Your task to perform on an android device: Turn on the flashlight Image 0: 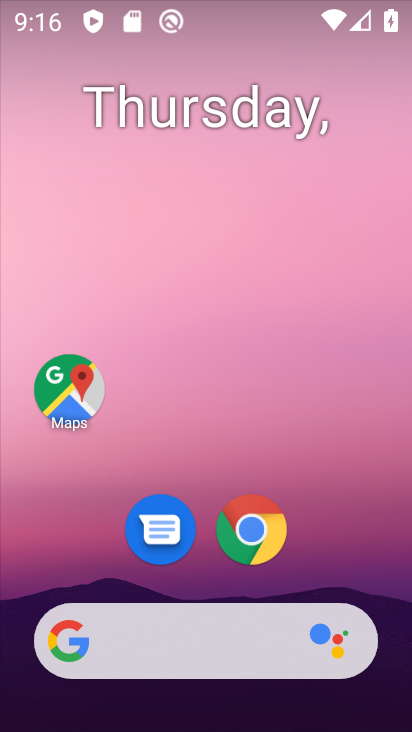
Step 0: drag from (346, 550) to (260, 161)
Your task to perform on an android device: Turn on the flashlight Image 1: 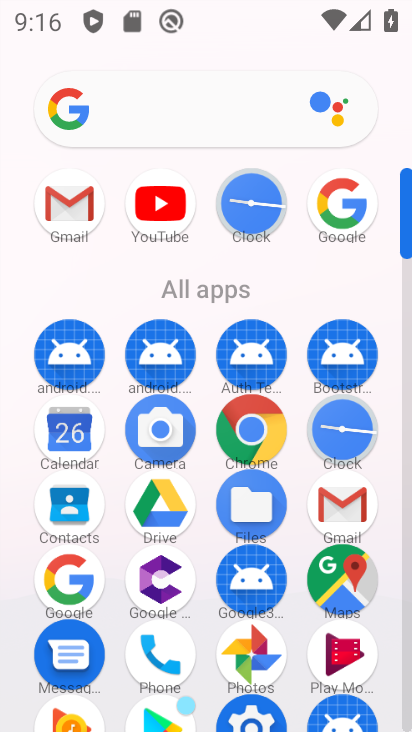
Step 1: drag from (195, 552) to (213, 348)
Your task to perform on an android device: Turn on the flashlight Image 2: 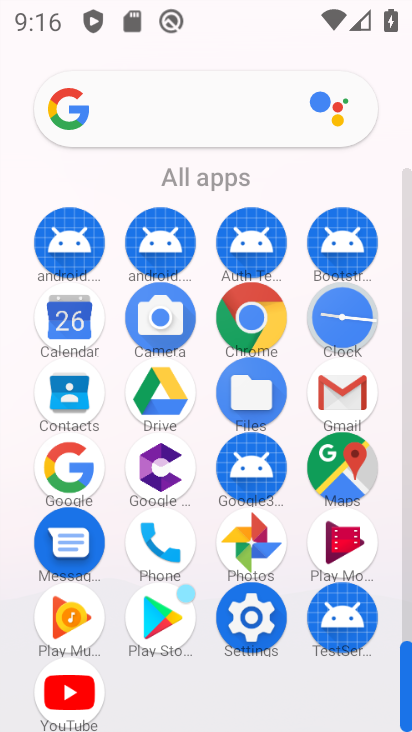
Step 2: click (252, 616)
Your task to perform on an android device: Turn on the flashlight Image 3: 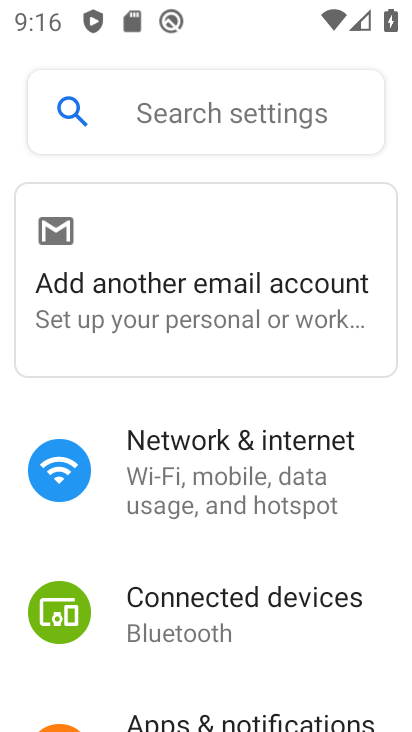
Step 3: drag from (259, 677) to (298, 537)
Your task to perform on an android device: Turn on the flashlight Image 4: 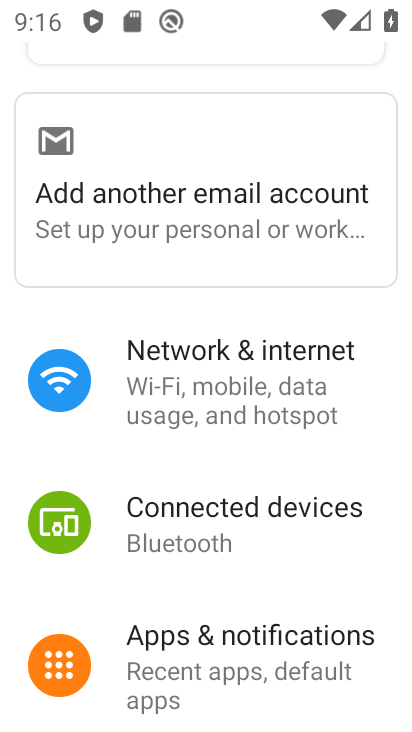
Step 4: drag from (197, 593) to (256, 493)
Your task to perform on an android device: Turn on the flashlight Image 5: 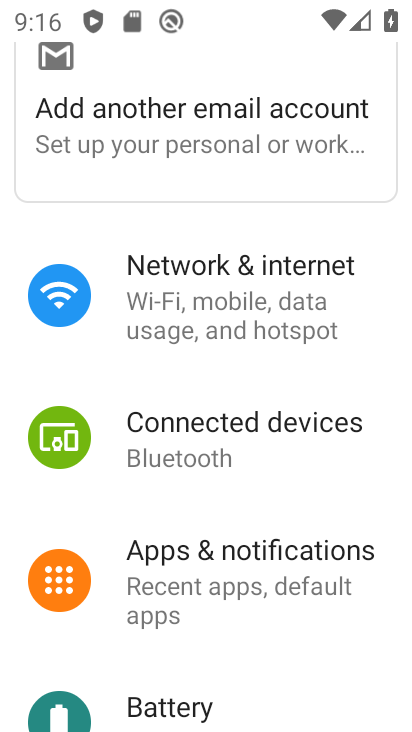
Step 5: drag from (211, 641) to (291, 516)
Your task to perform on an android device: Turn on the flashlight Image 6: 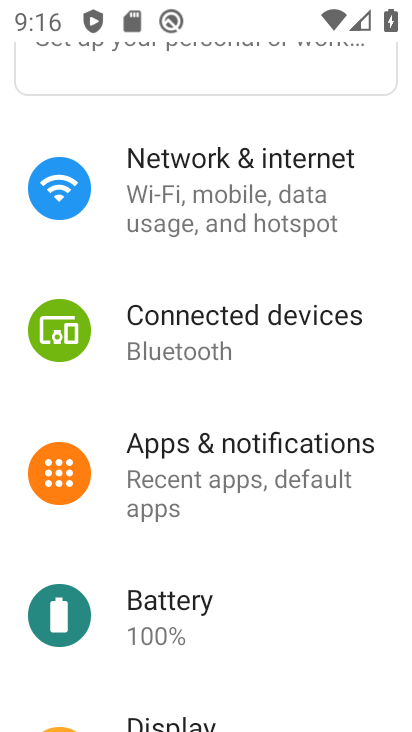
Step 6: drag from (202, 558) to (278, 418)
Your task to perform on an android device: Turn on the flashlight Image 7: 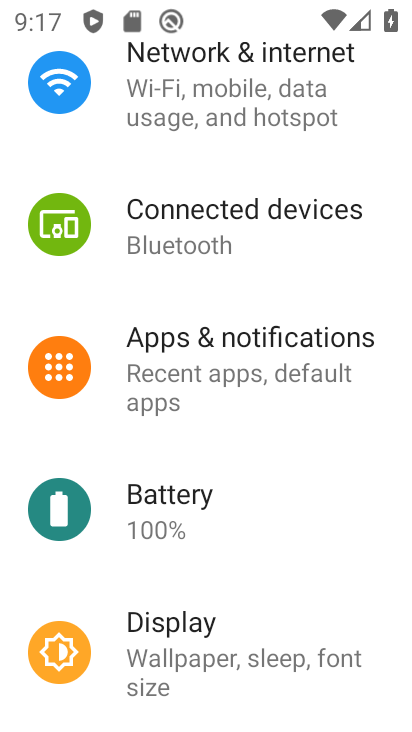
Step 7: drag from (234, 416) to (257, 346)
Your task to perform on an android device: Turn on the flashlight Image 8: 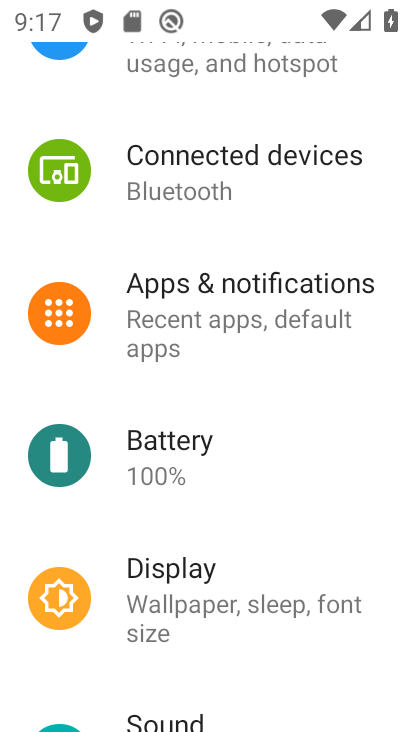
Step 8: drag from (247, 567) to (296, 495)
Your task to perform on an android device: Turn on the flashlight Image 9: 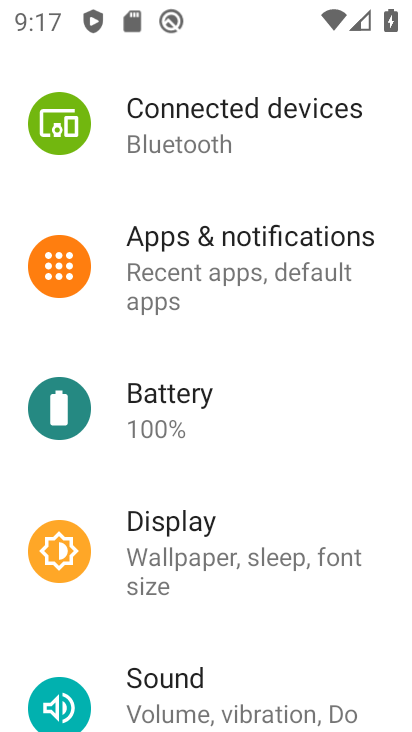
Step 9: drag from (287, 277) to (297, 386)
Your task to perform on an android device: Turn on the flashlight Image 10: 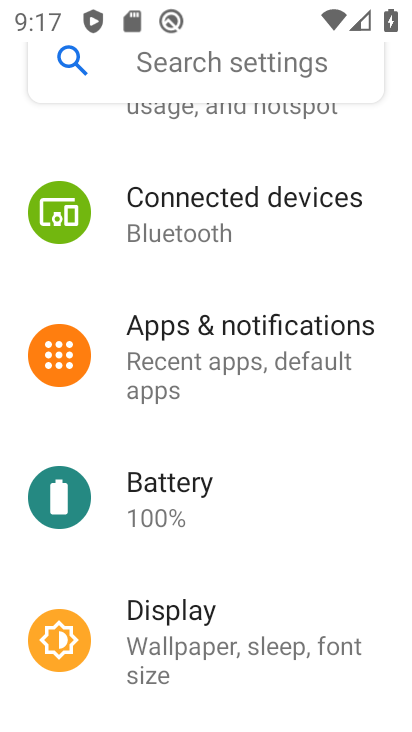
Step 10: drag from (271, 601) to (312, 390)
Your task to perform on an android device: Turn on the flashlight Image 11: 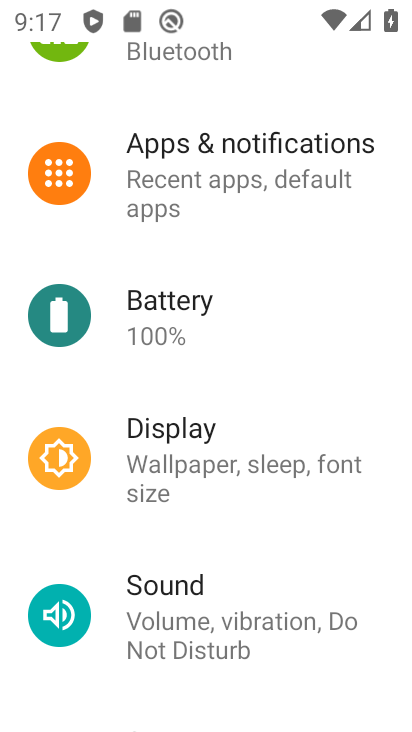
Step 11: click (283, 471)
Your task to perform on an android device: Turn on the flashlight Image 12: 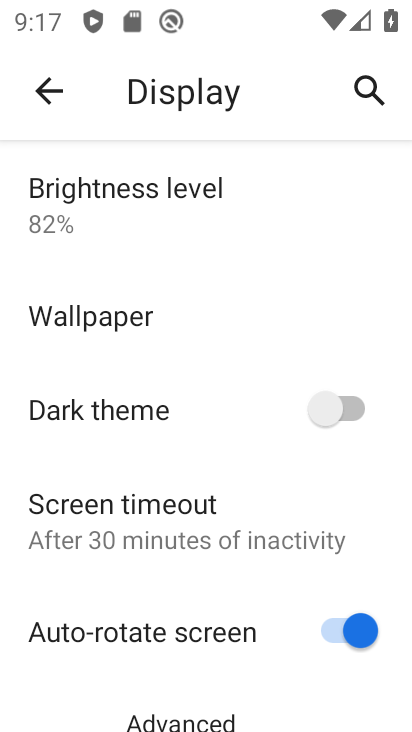
Step 12: drag from (175, 471) to (244, 316)
Your task to perform on an android device: Turn on the flashlight Image 13: 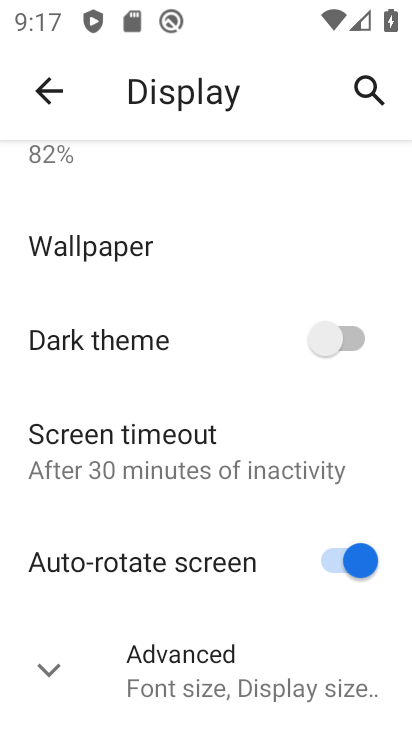
Step 13: click (260, 464)
Your task to perform on an android device: Turn on the flashlight Image 14: 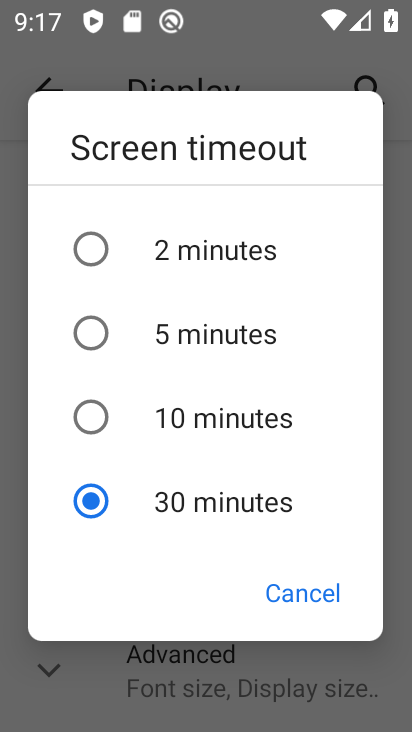
Step 14: click (307, 575)
Your task to perform on an android device: Turn on the flashlight Image 15: 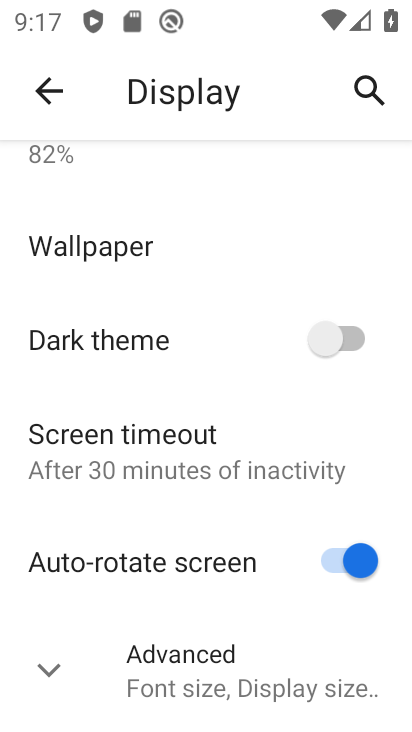
Step 15: drag from (236, 603) to (261, 455)
Your task to perform on an android device: Turn on the flashlight Image 16: 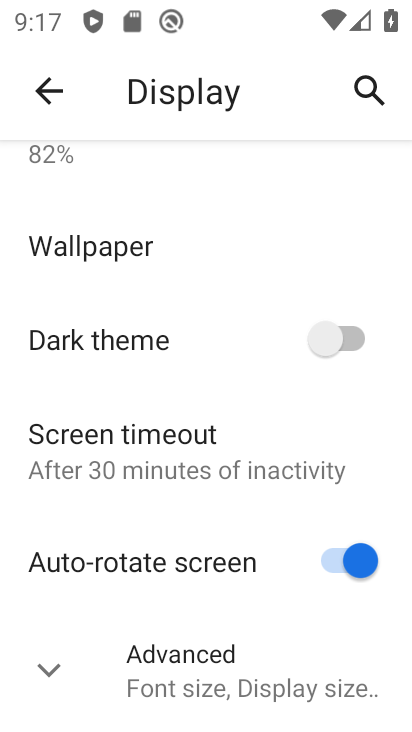
Step 16: click (252, 692)
Your task to perform on an android device: Turn on the flashlight Image 17: 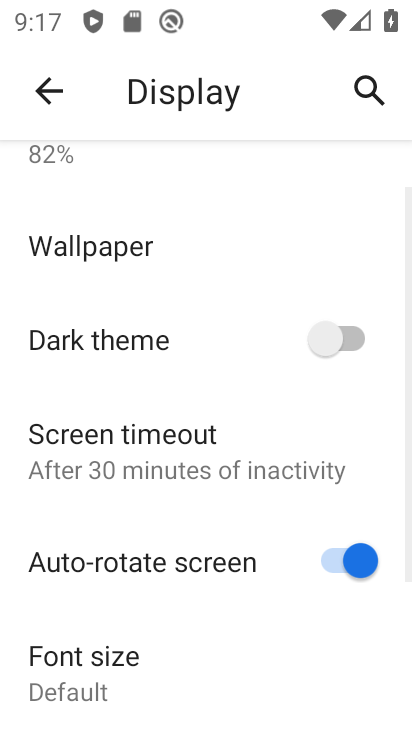
Step 17: task complete